Your task to perform on an android device: toggle javascript in the chrome app Image 0: 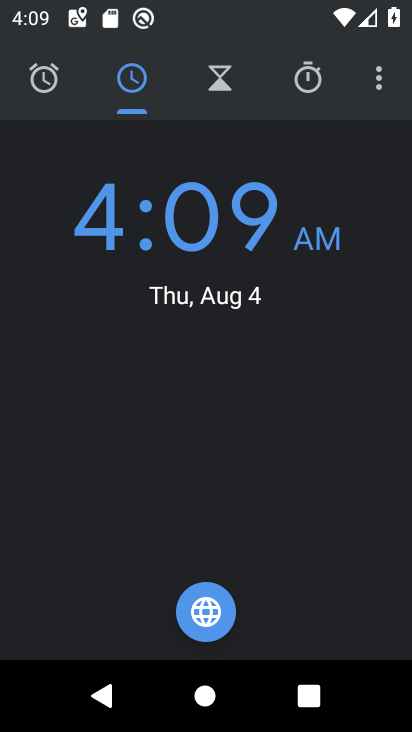
Step 0: press back button
Your task to perform on an android device: toggle javascript in the chrome app Image 1: 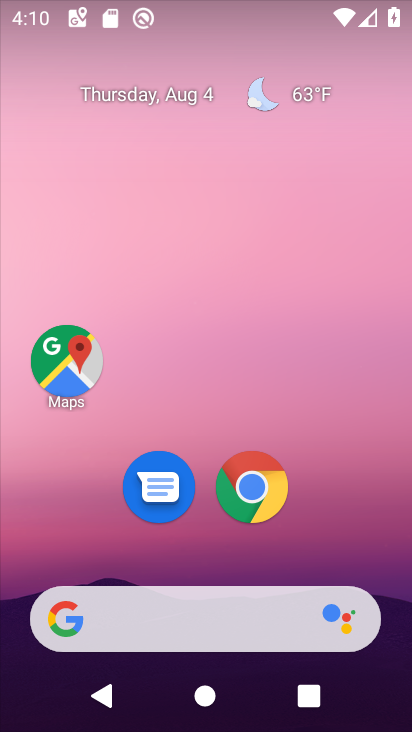
Step 1: click (266, 479)
Your task to perform on an android device: toggle javascript in the chrome app Image 2: 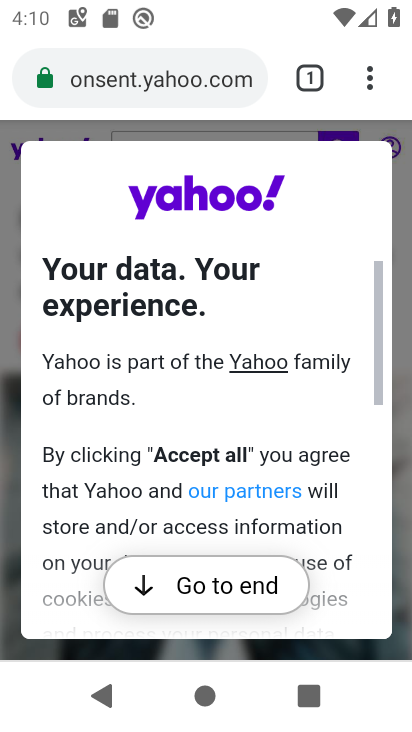
Step 2: drag from (367, 69) to (85, 544)
Your task to perform on an android device: toggle javascript in the chrome app Image 3: 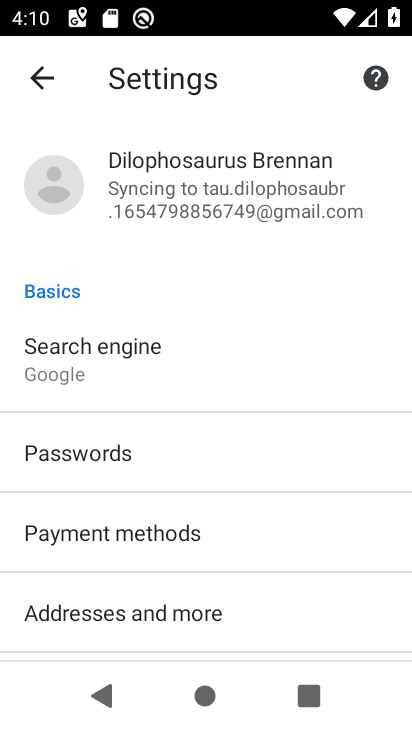
Step 3: drag from (202, 598) to (267, 76)
Your task to perform on an android device: toggle javascript in the chrome app Image 4: 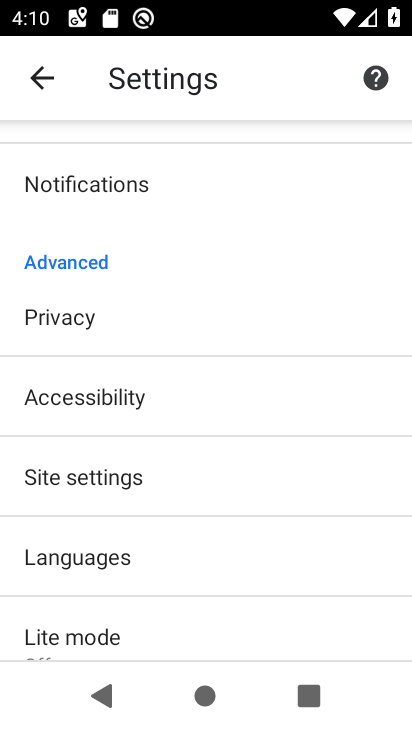
Step 4: drag from (129, 610) to (247, 98)
Your task to perform on an android device: toggle javascript in the chrome app Image 5: 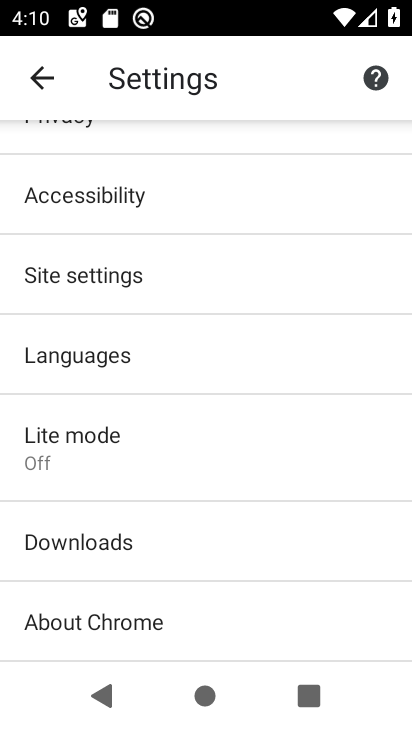
Step 5: click (100, 266)
Your task to perform on an android device: toggle javascript in the chrome app Image 6: 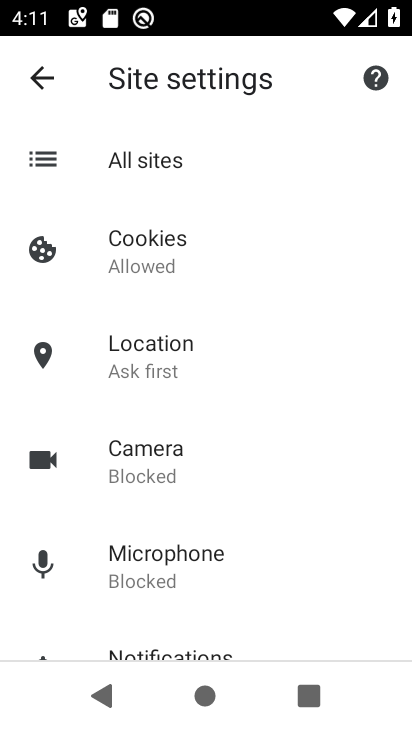
Step 6: drag from (229, 627) to (340, 34)
Your task to perform on an android device: toggle javascript in the chrome app Image 7: 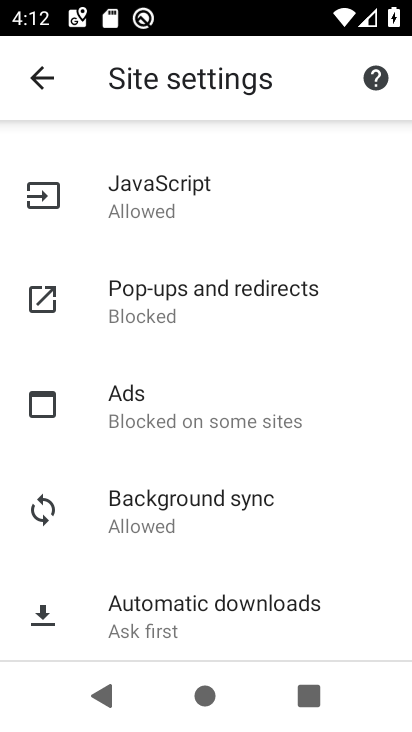
Step 7: drag from (204, 539) to (219, 686)
Your task to perform on an android device: toggle javascript in the chrome app Image 8: 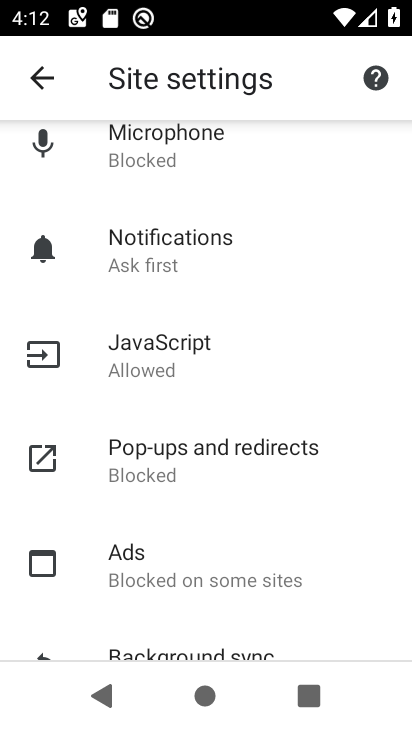
Step 8: click (136, 366)
Your task to perform on an android device: toggle javascript in the chrome app Image 9: 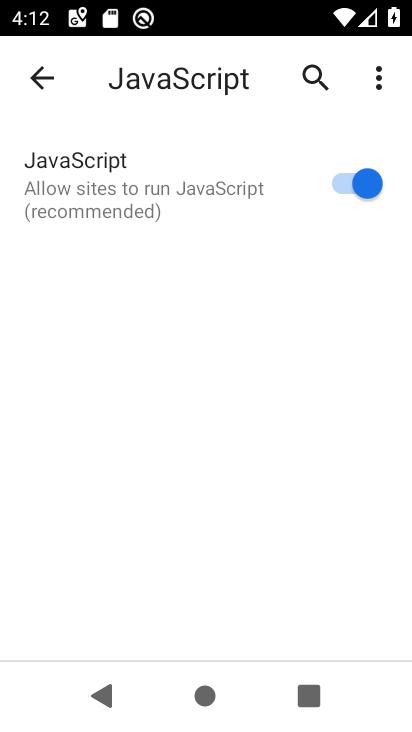
Step 9: task complete